Your task to perform on an android device: change notification settings in the gmail app Image 0: 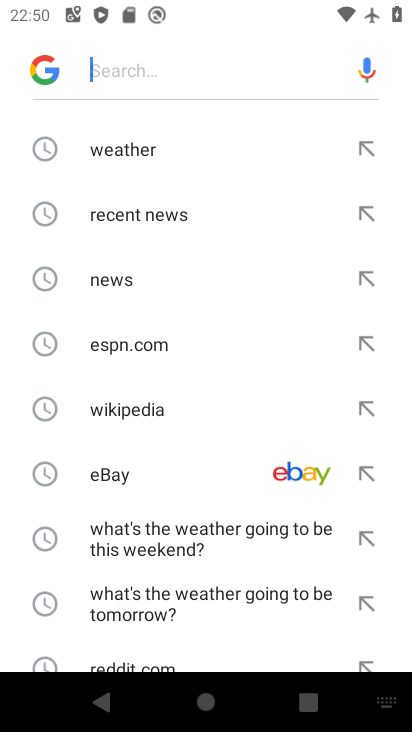
Step 0: press back button
Your task to perform on an android device: change notification settings in the gmail app Image 1: 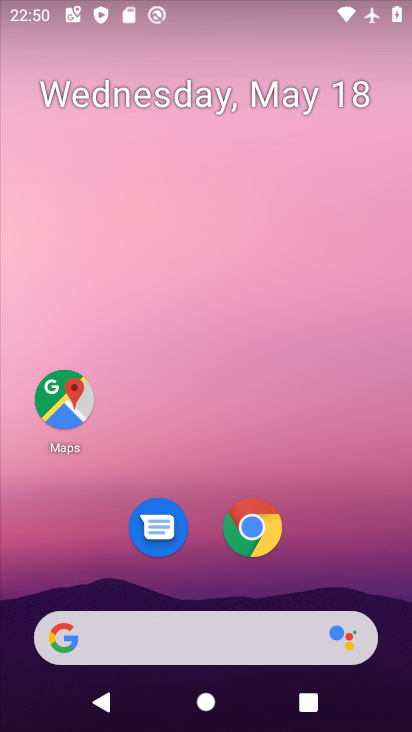
Step 1: drag from (336, 560) to (263, 287)
Your task to perform on an android device: change notification settings in the gmail app Image 2: 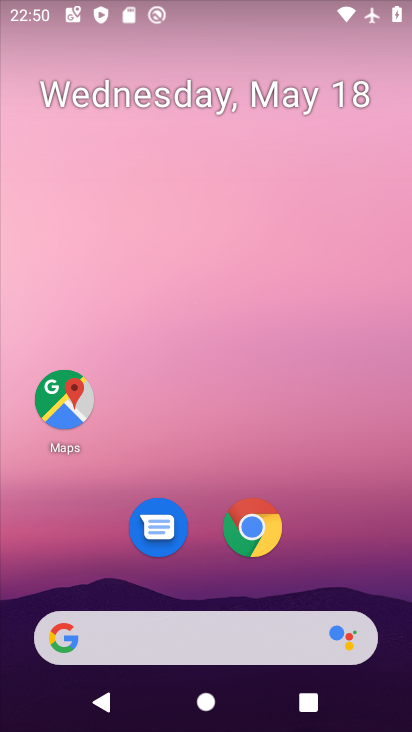
Step 2: drag from (349, 559) to (270, 132)
Your task to perform on an android device: change notification settings in the gmail app Image 3: 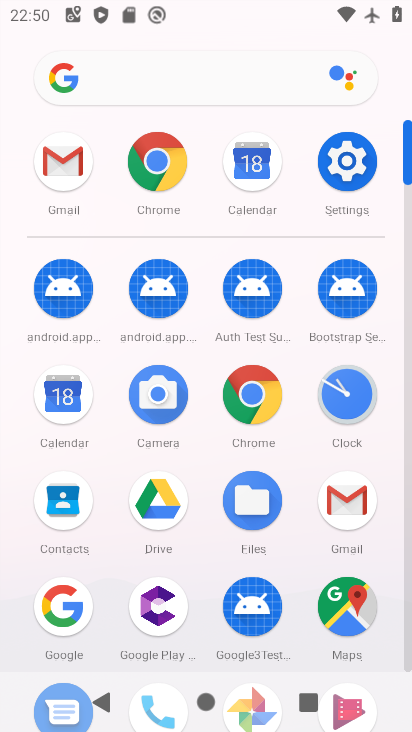
Step 3: click (340, 489)
Your task to perform on an android device: change notification settings in the gmail app Image 4: 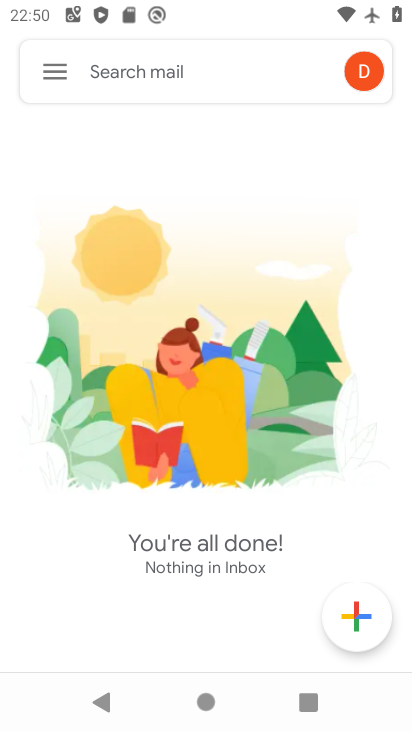
Step 4: click (46, 72)
Your task to perform on an android device: change notification settings in the gmail app Image 5: 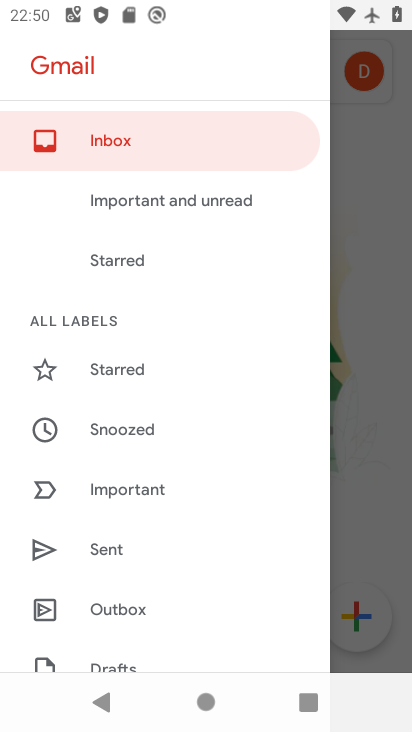
Step 5: drag from (203, 547) to (150, 326)
Your task to perform on an android device: change notification settings in the gmail app Image 6: 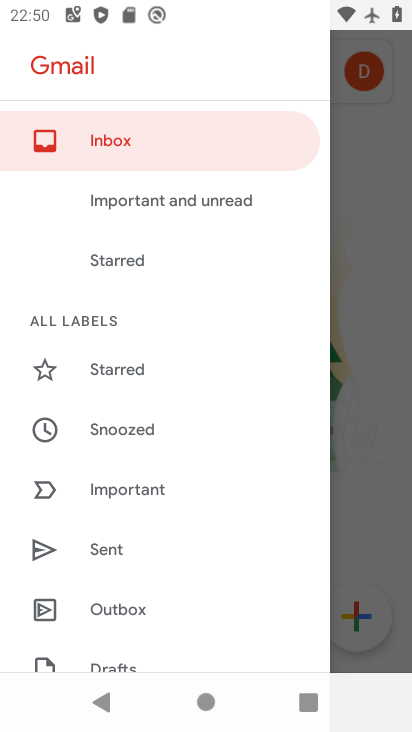
Step 6: drag from (87, 586) to (51, 308)
Your task to perform on an android device: change notification settings in the gmail app Image 7: 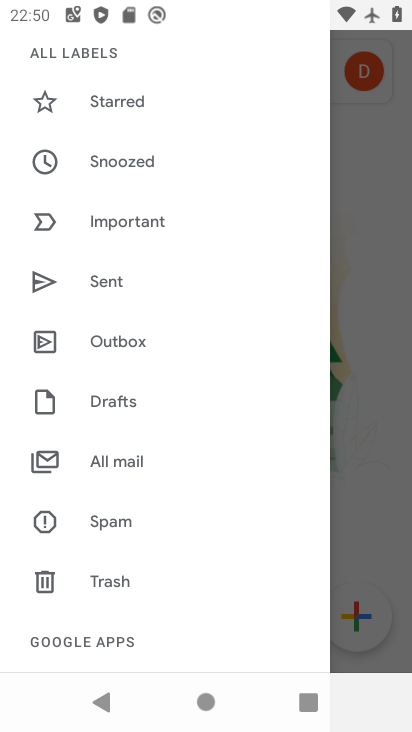
Step 7: drag from (118, 645) to (91, 460)
Your task to perform on an android device: change notification settings in the gmail app Image 8: 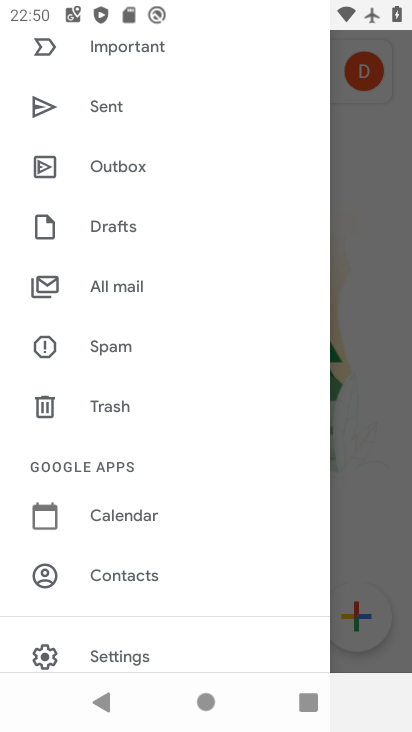
Step 8: click (68, 639)
Your task to perform on an android device: change notification settings in the gmail app Image 9: 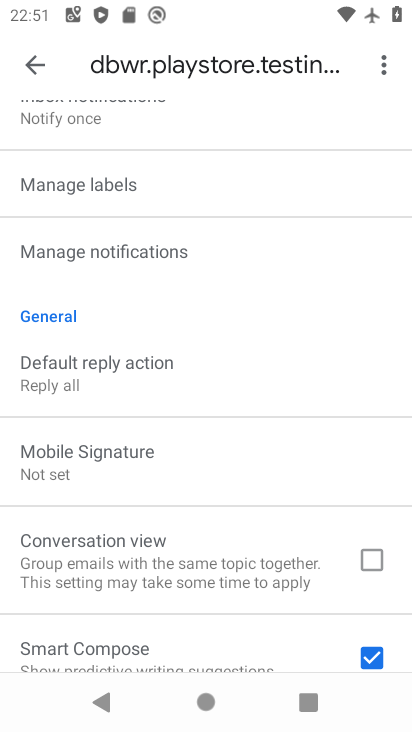
Step 9: drag from (177, 584) to (142, 476)
Your task to perform on an android device: change notification settings in the gmail app Image 10: 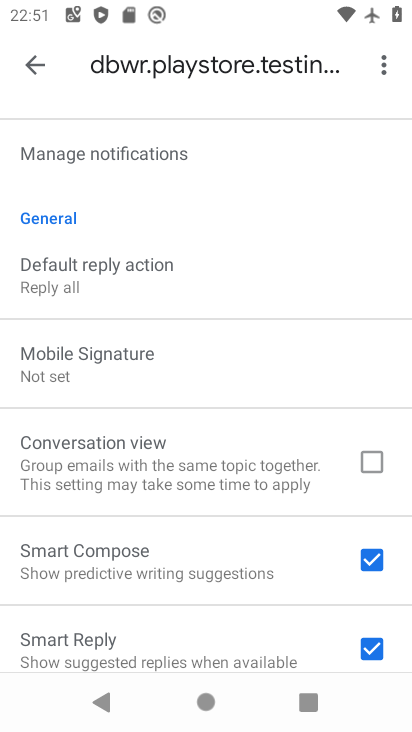
Step 10: click (150, 168)
Your task to perform on an android device: change notification settings in the gmail app Image 11: 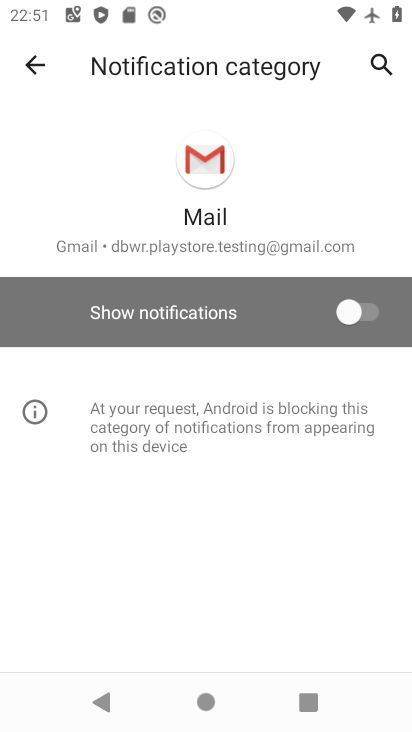
Step 11: click (347, 302)
Your task to perform on an android device: change notification settings in the gmail app Image 12: 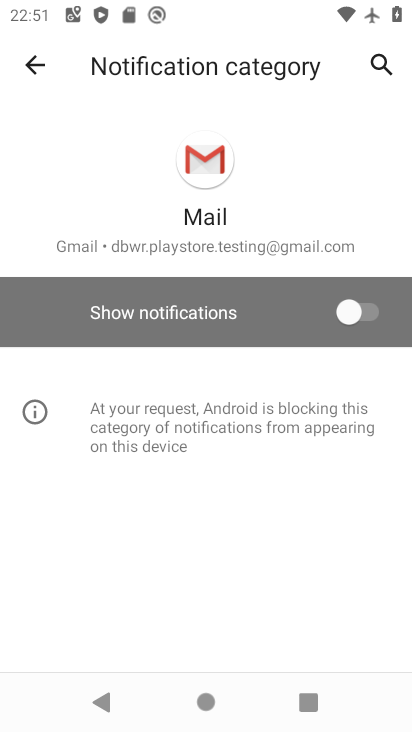
Step 12: task complete